Your task to perform on an android device: empty trash in the gmail app Image 0: 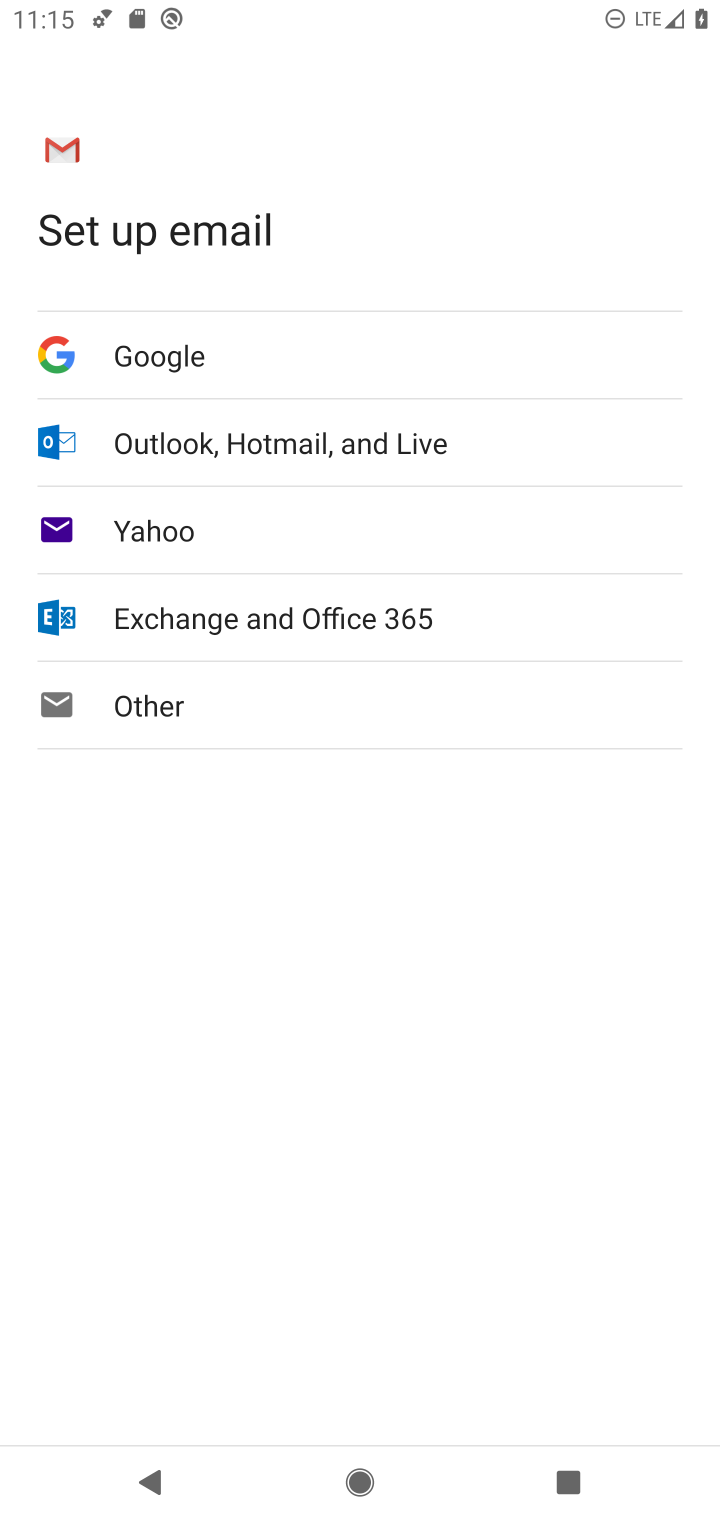
Step 0: press home button
Your task to perform on an android device: empty trash in the gmail app Image 1: 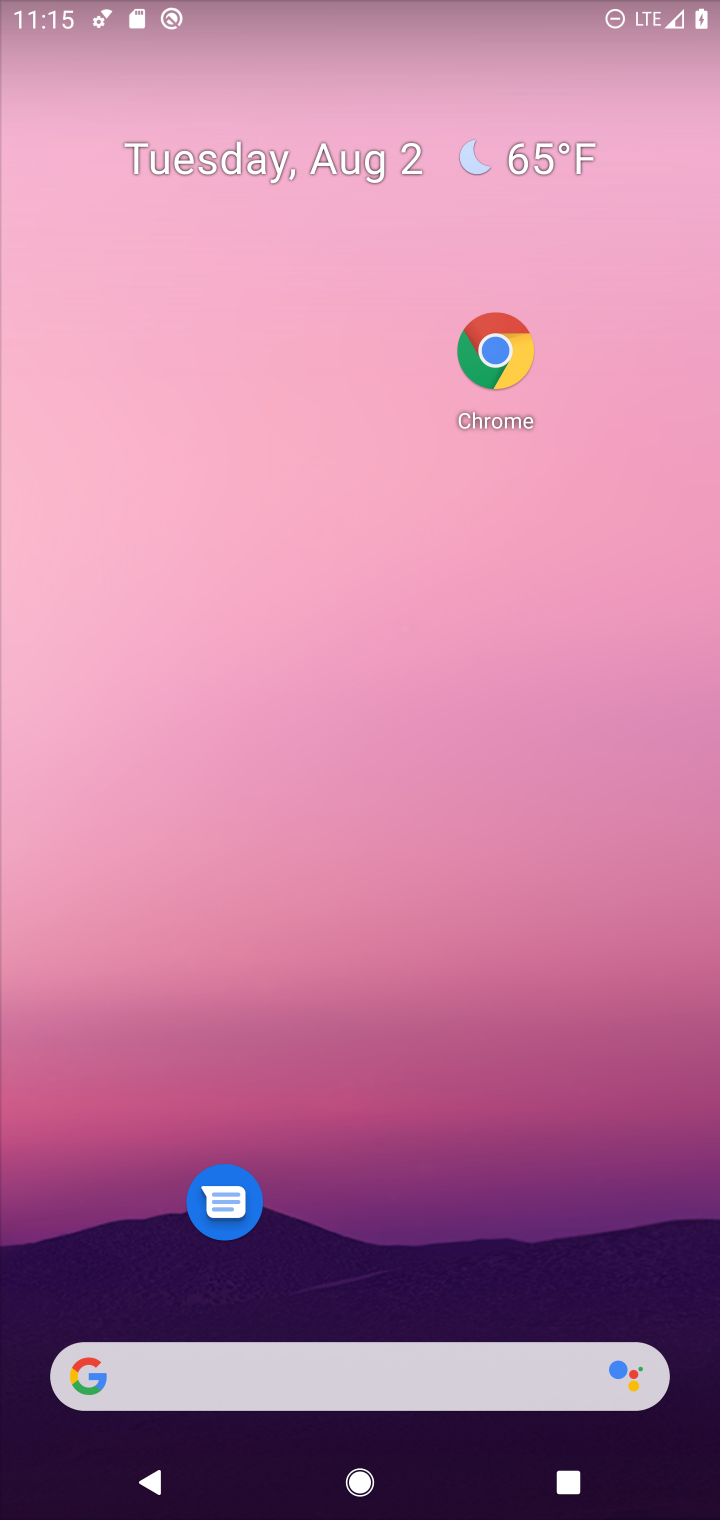
Step 1: drag from (407, 1127) to (466, 84)
Your task to perform on an android device: empty trash in the gmail app Image 2: 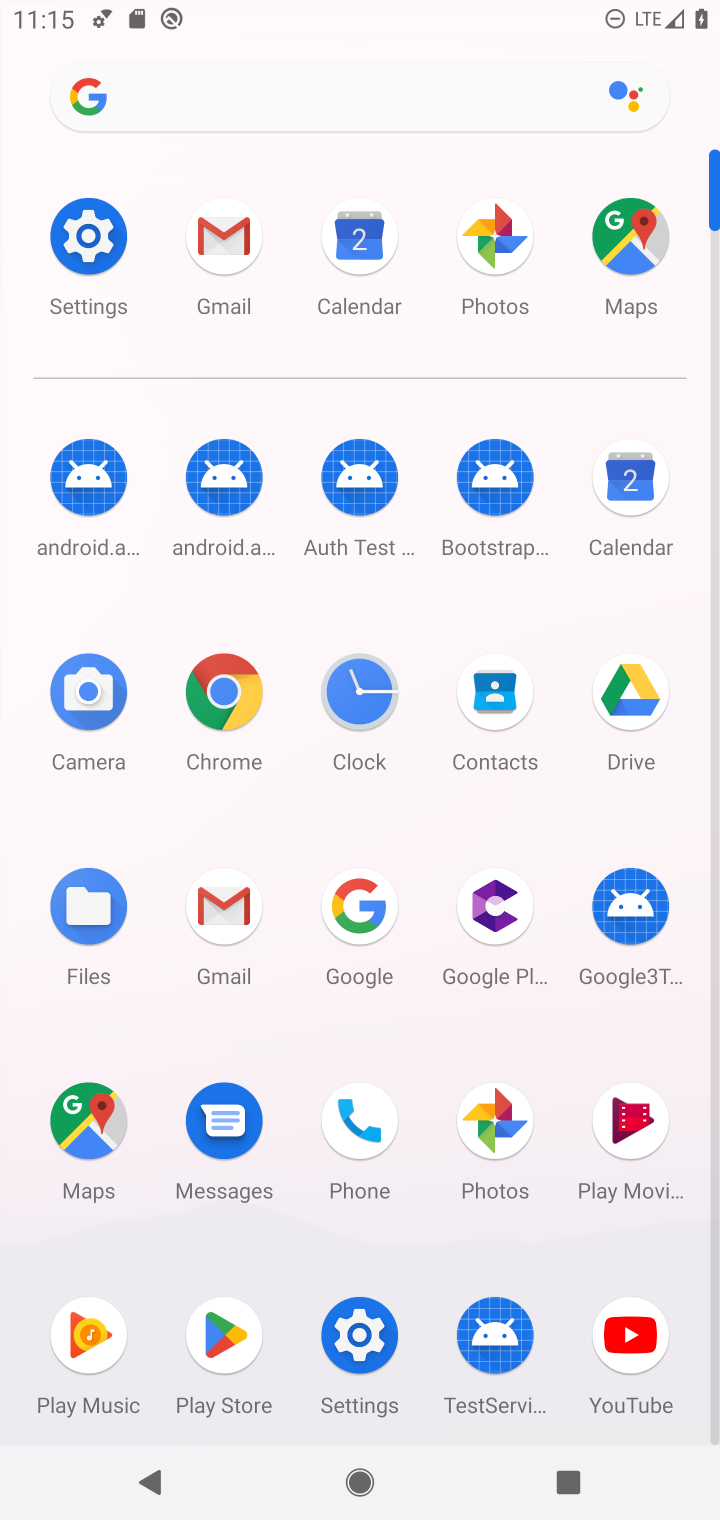
Step 2: click (216, 247)
Your task to perform on an android device: empty trash in the gmail app Image 3: 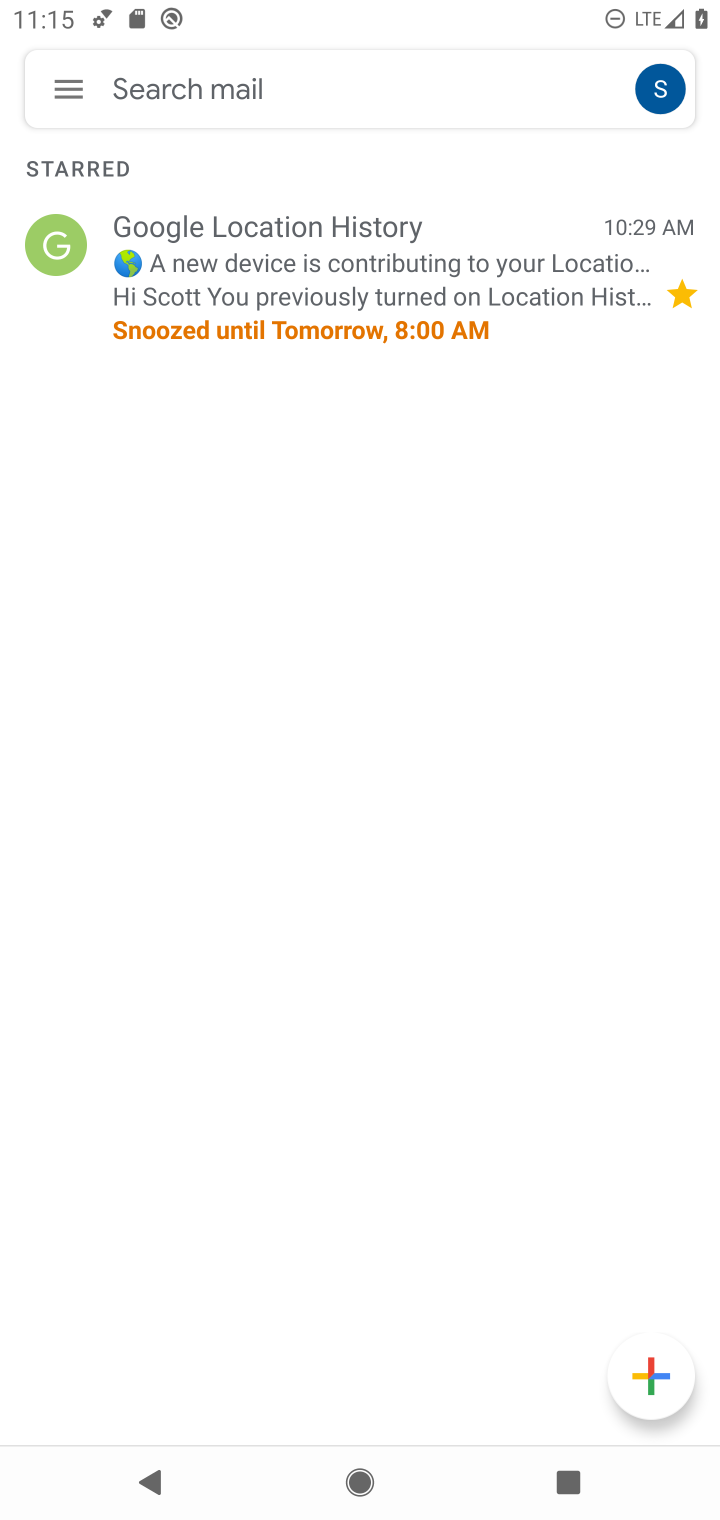
Step 3: click (57, 85)
Your task to perform on an android device: empty trash in the gmail app Image 4: 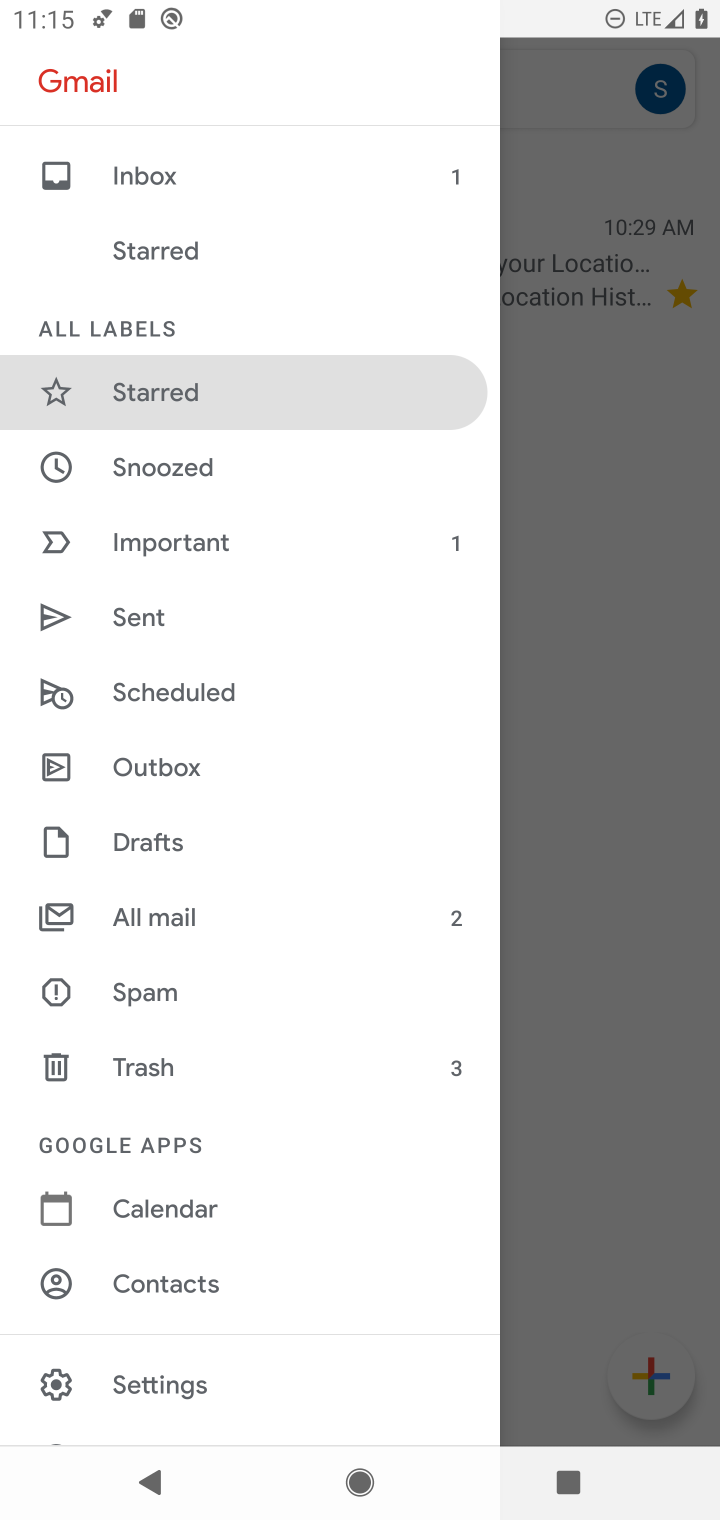
Step 4: click (164, 1062)
Your task to perform on an android device: empty trash in the gmail app Image 5: 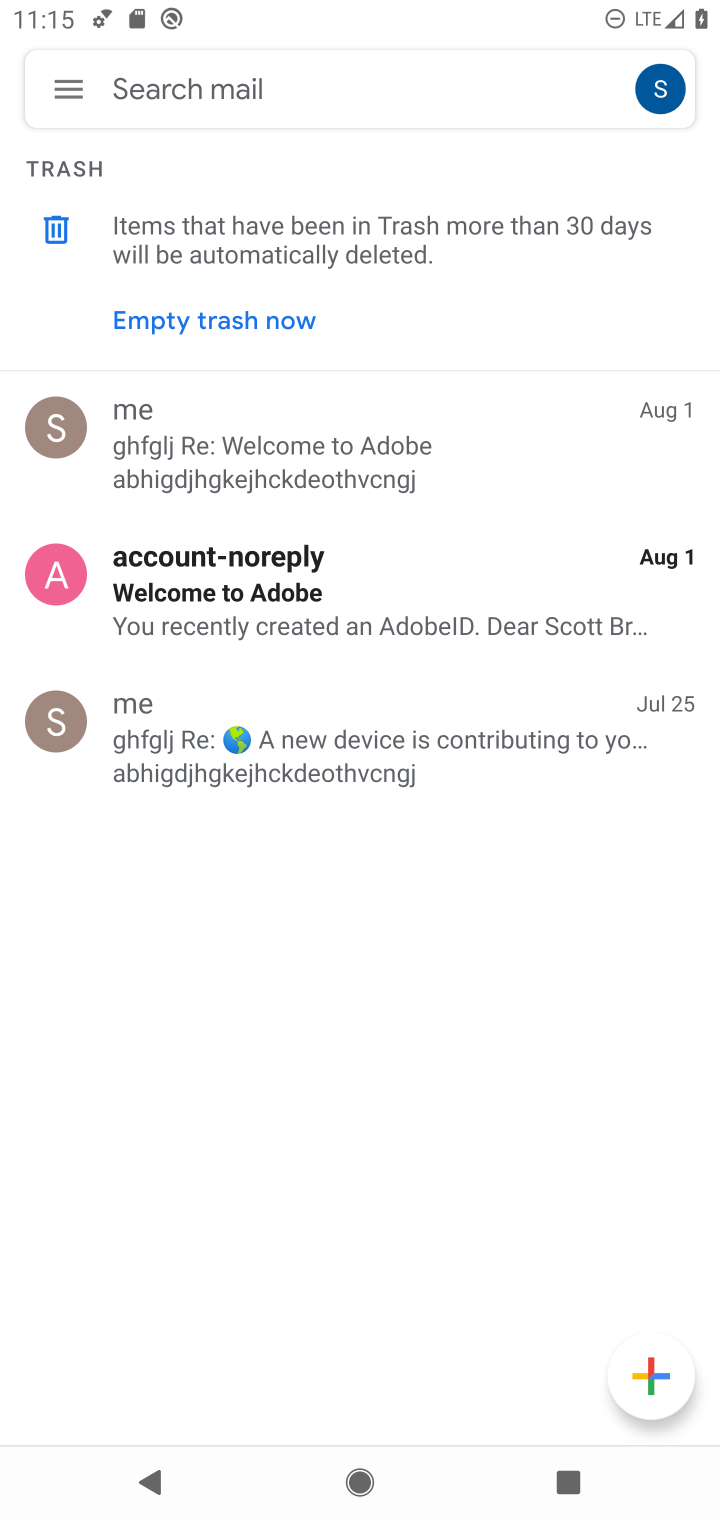
Step 5: click (58, 83)
Your task to perform on an android device: empty trash in the gmail app Image 6: 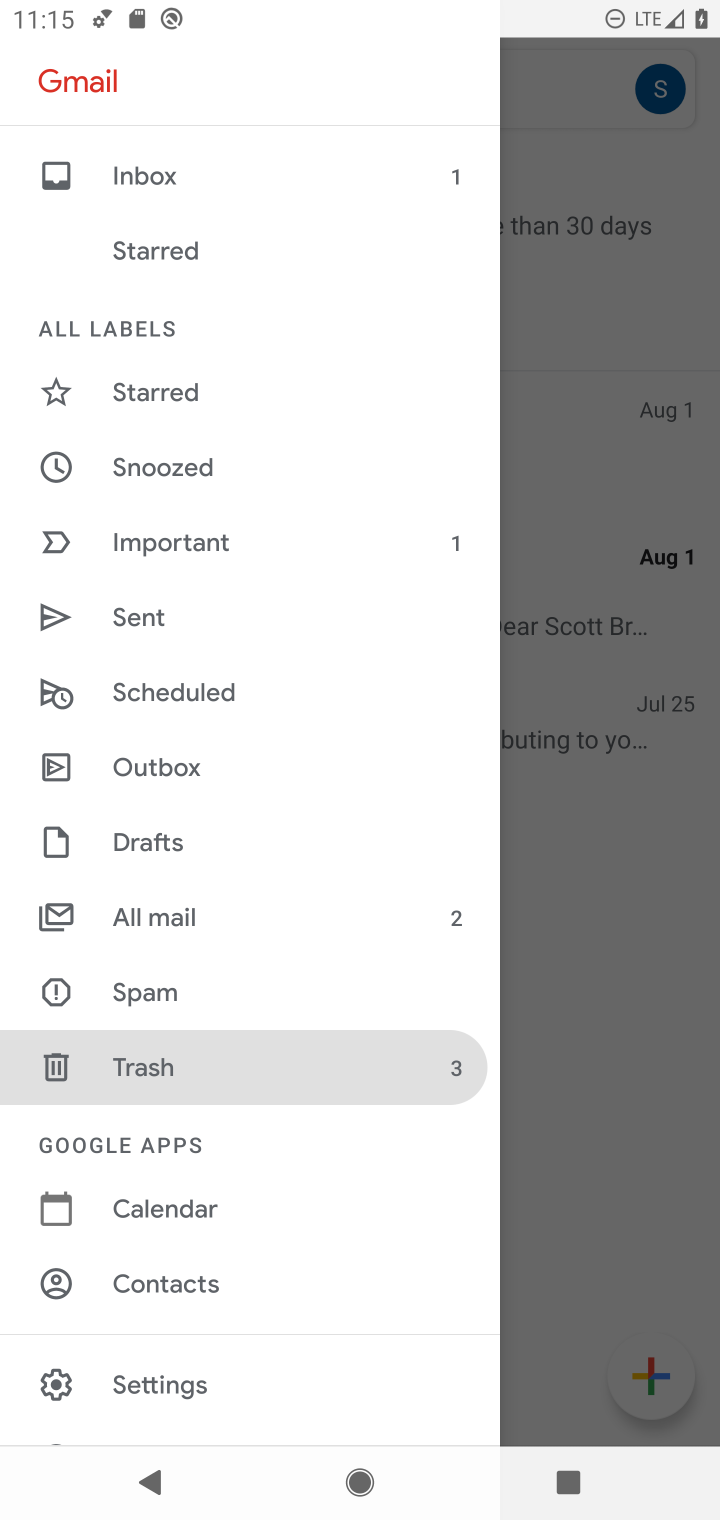
Step 6: click (125, 1064)
Your task to perform on an android device: empty trash in the gmail app Image 7: 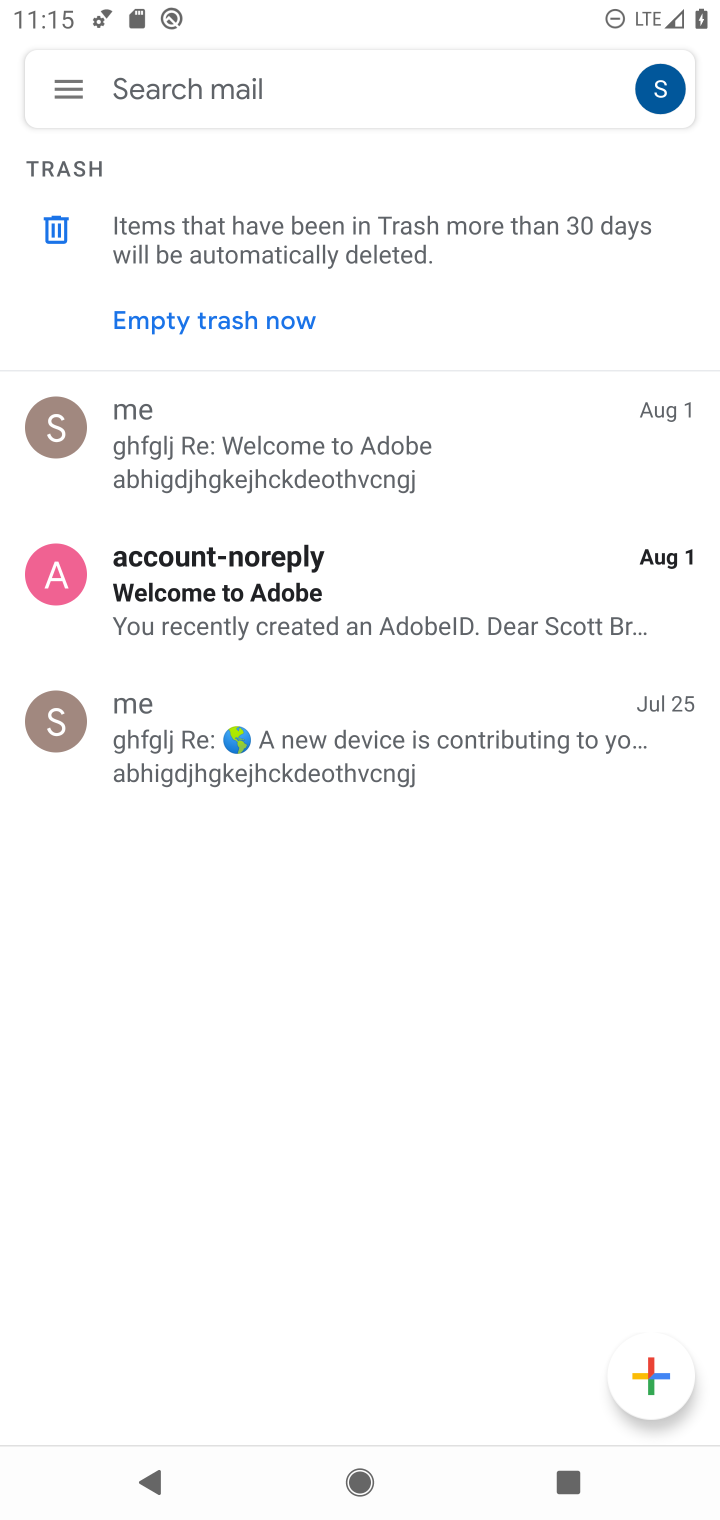
Step 7: click (226, 320)
Your task to perform on an android device: empty trash in the gmail app Image 8: 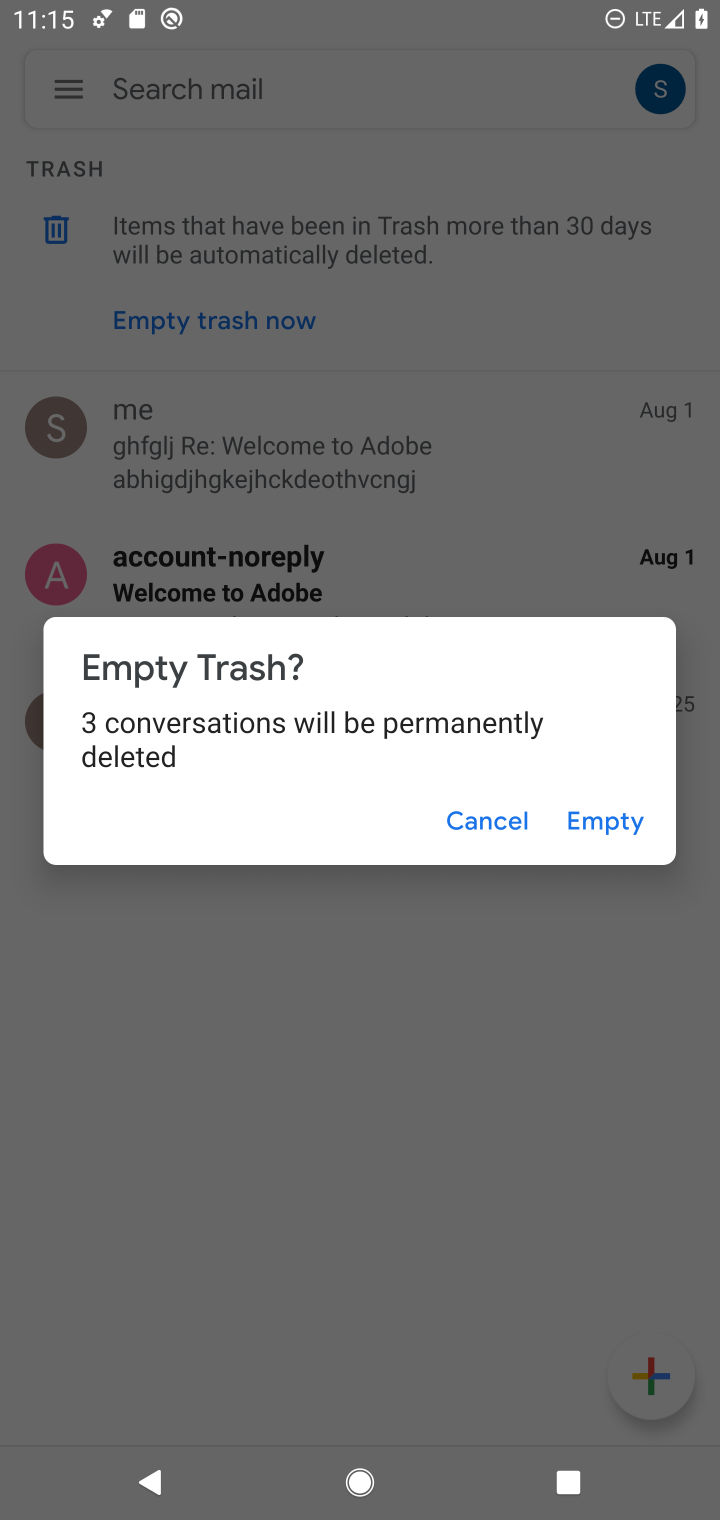
Step 8: click (630, 826)
Your task to perform on an android device: empty trash in the gmail app Image 9: 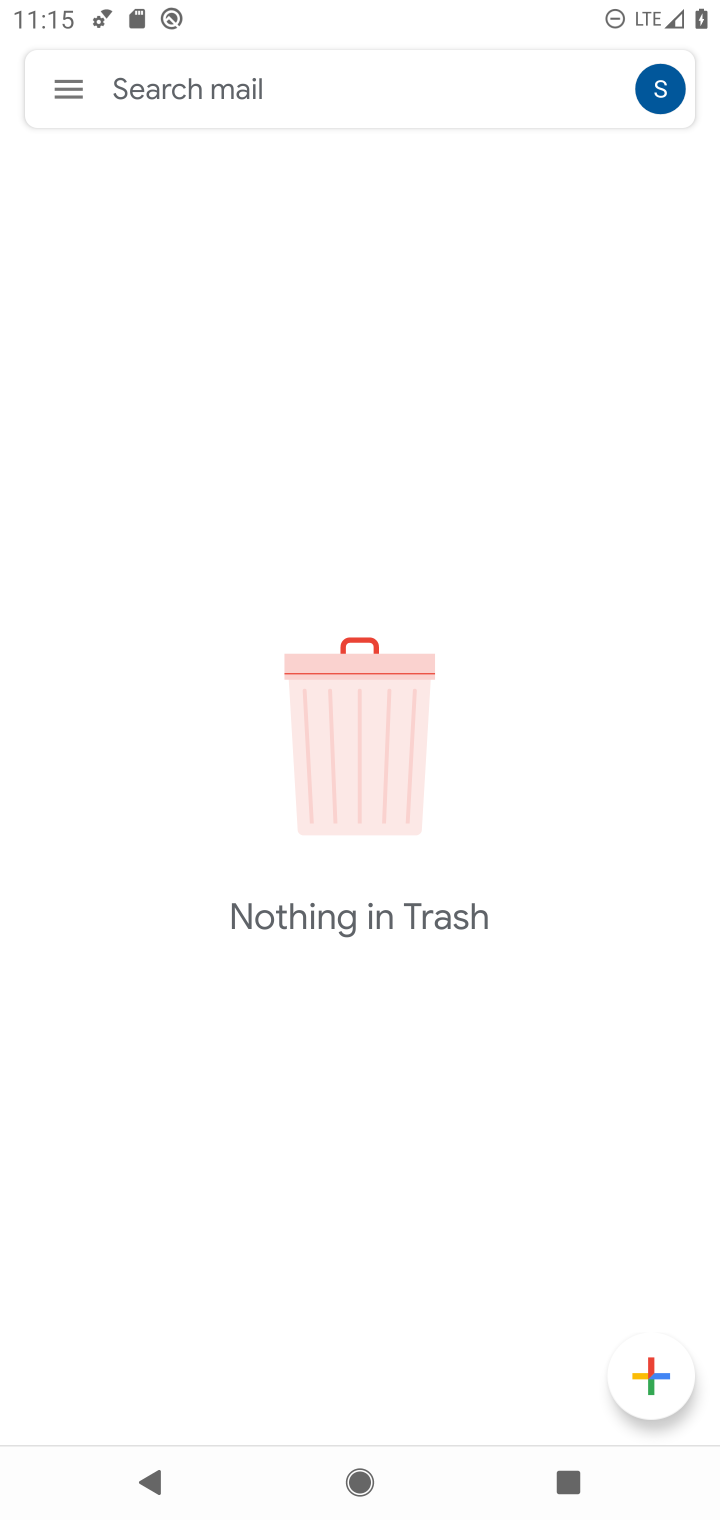
Step 9: task complete